Your task to perform on an android device: toggle wifi Image 0: 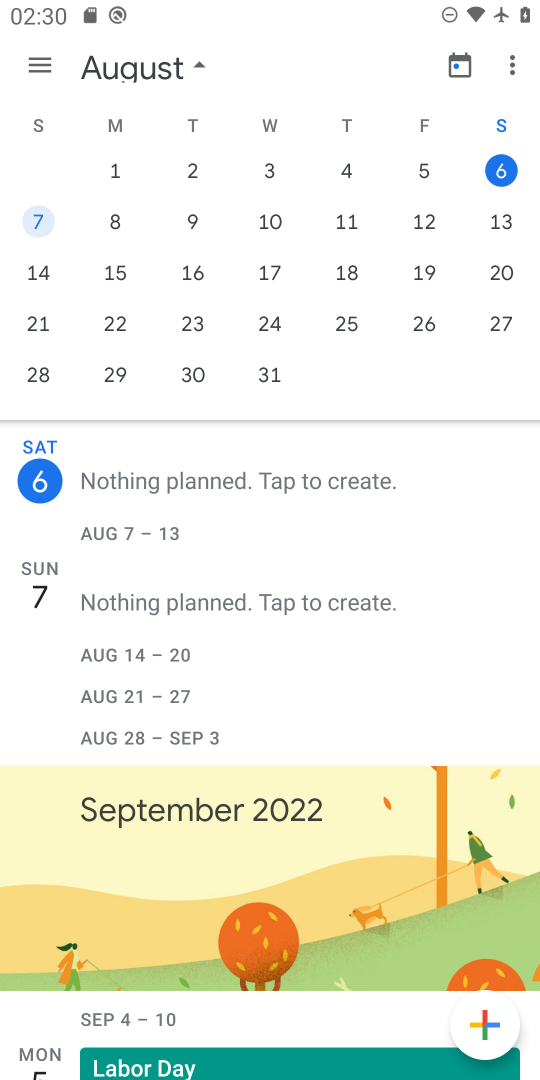
Step 0: press home button
Your task to perform on an android device: toggle wifi Image 1: 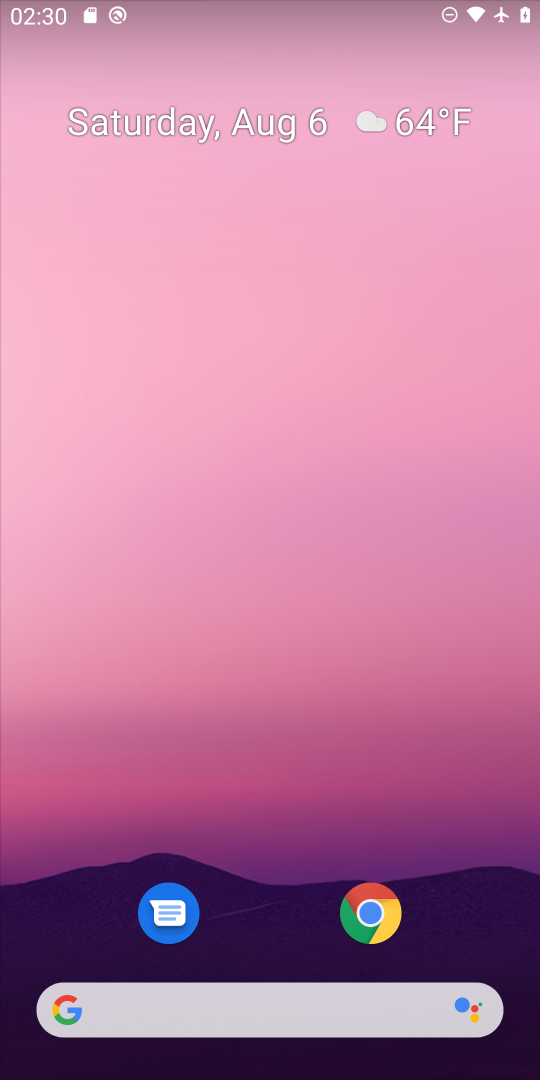
Step 1: drag from (288, 918) to (302, 215)
Your task to perform on an android device: toggle wifi Image 2: 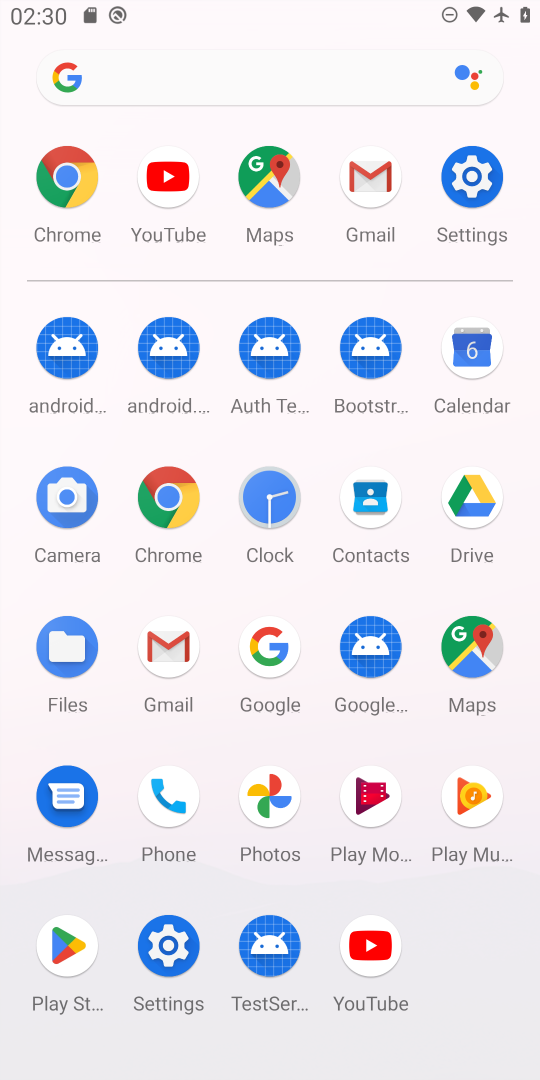
Step 2: click (475, 183)
Your task to perform on an android device: toggle wifi Image 3: 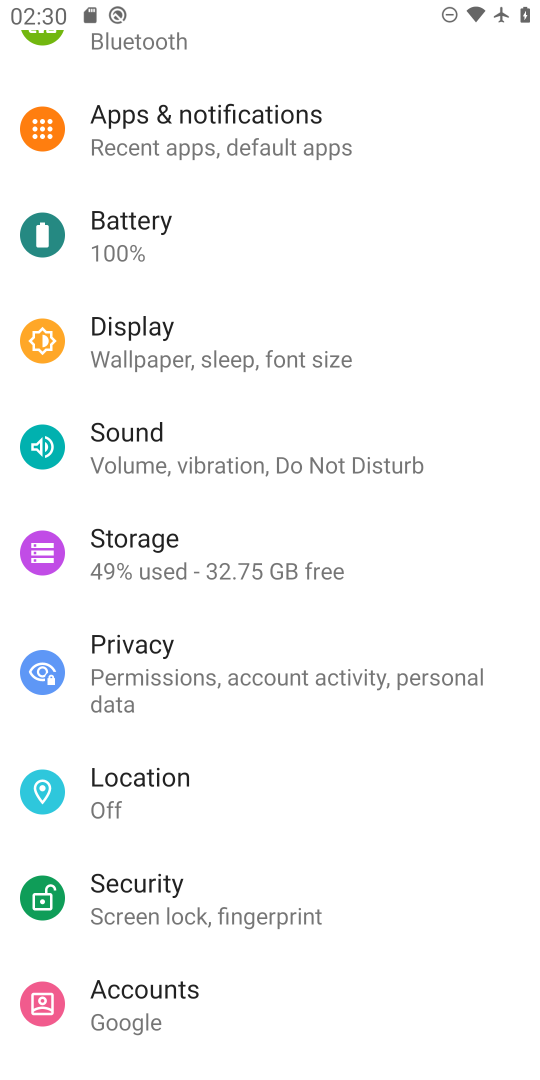
Step 3: drag from (454, 280) to (466, 432)
Your task to perform on an android device: toggle wifi Image 4: 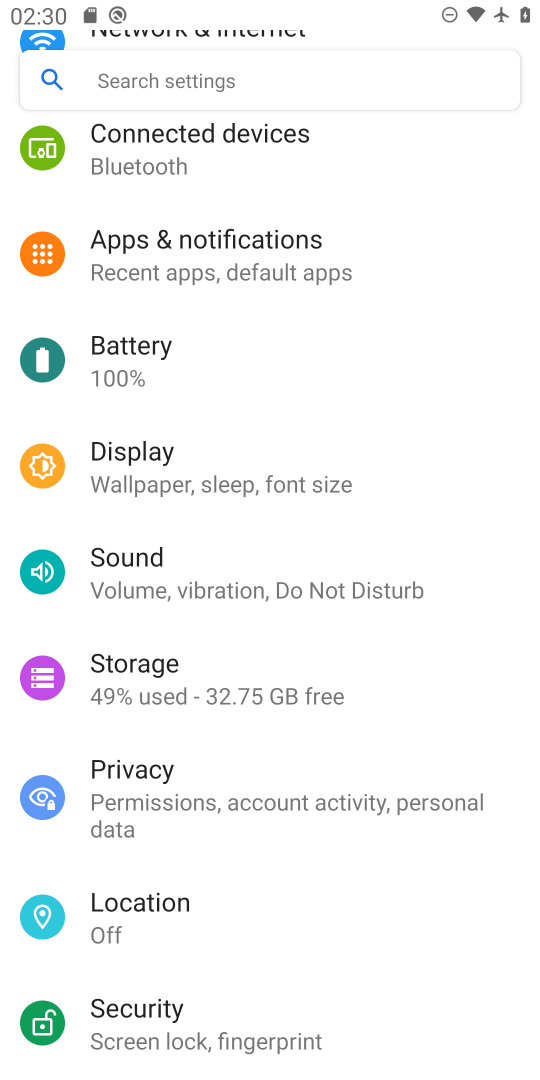
Step 4: drag from (471, 222) to (479, 396)
Your task to perform on an android device: toggle wifi Image 5: 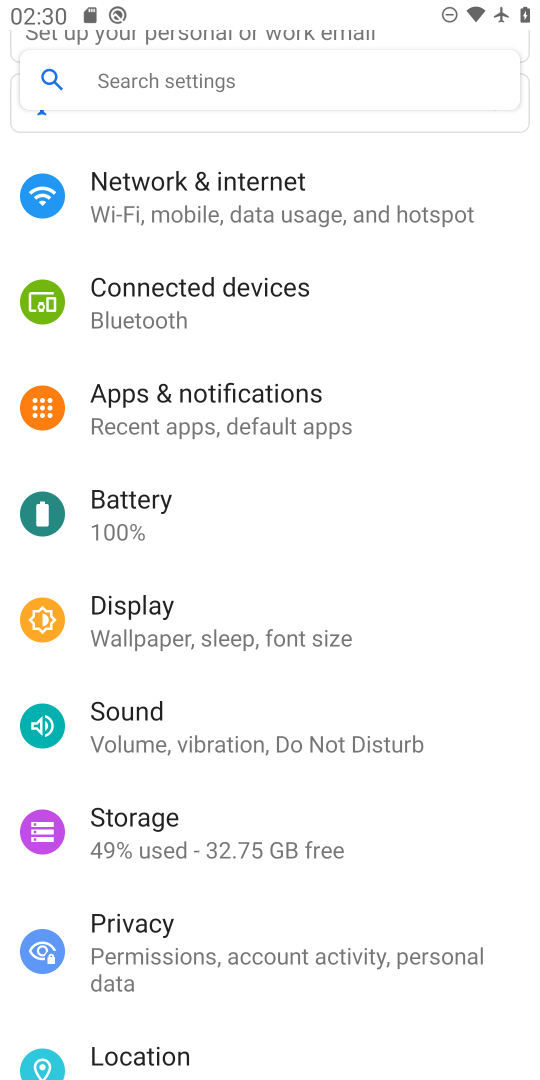
Step 5: drag from (489, 179) to (487, 508)
Your task to perform on an android device: toggle wifi Image 6: 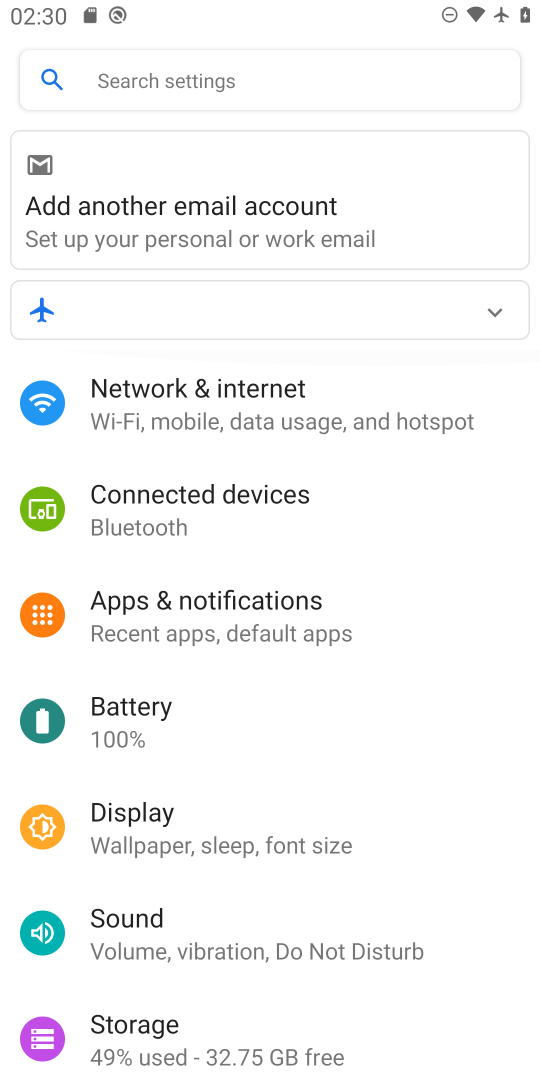
Step 6: click (456, 433)
Your task to perform on an android device: toggle wifi Image 7: 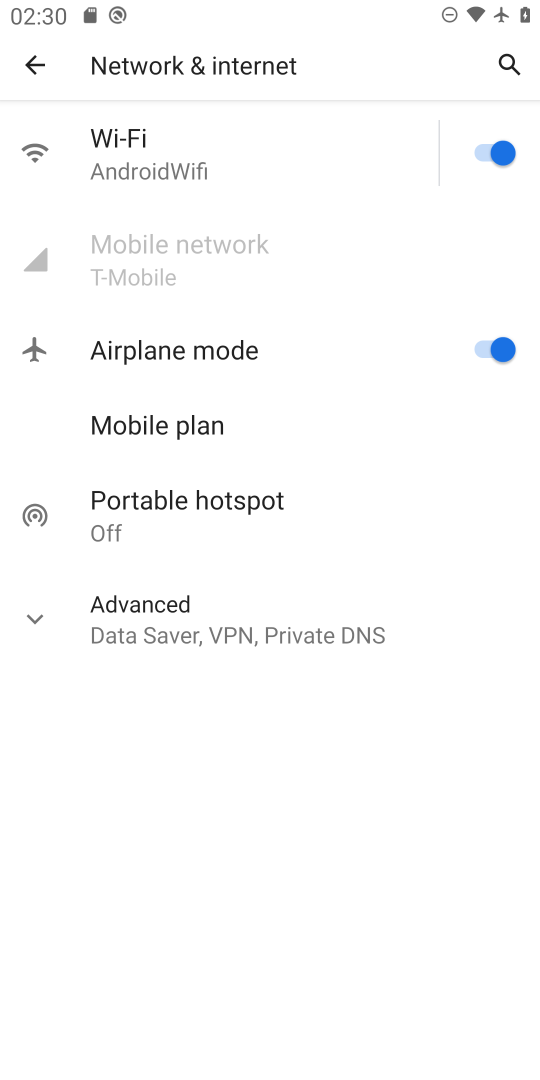
Step 7: click (490, 156)
Your task to perform on an android device: toggle wifi Image 8: 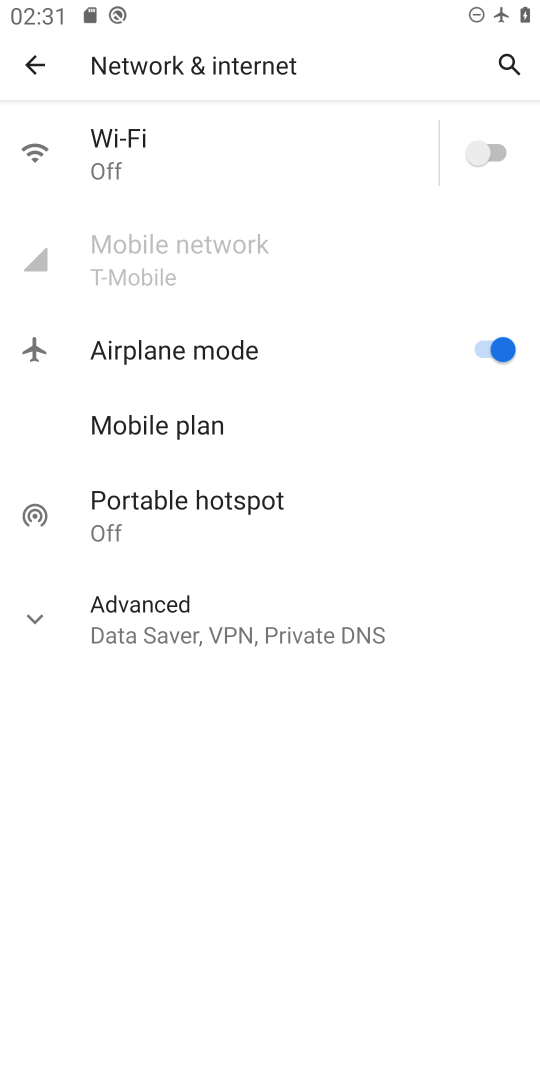
Step 8: task complete